Your task to perform on an android device: open app "The Home Depot" (install if not already installed), go to login, and select forgot password Image 0: 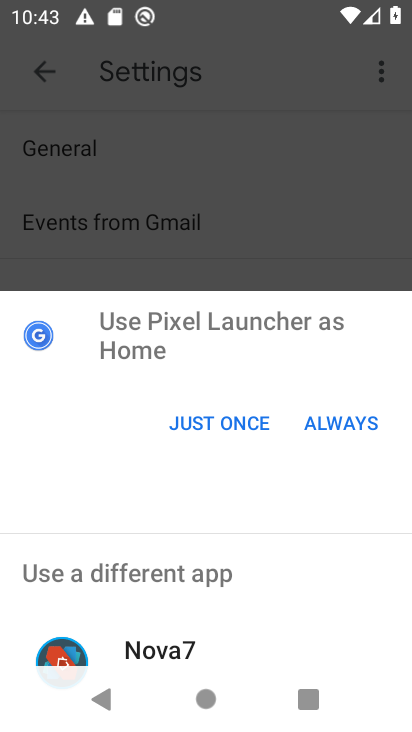
Step 0: click (220, 422)
Your task to perform on an android device: open app "The Home Depot" (install if not already installed), go to login, and select forgot password Image 1: 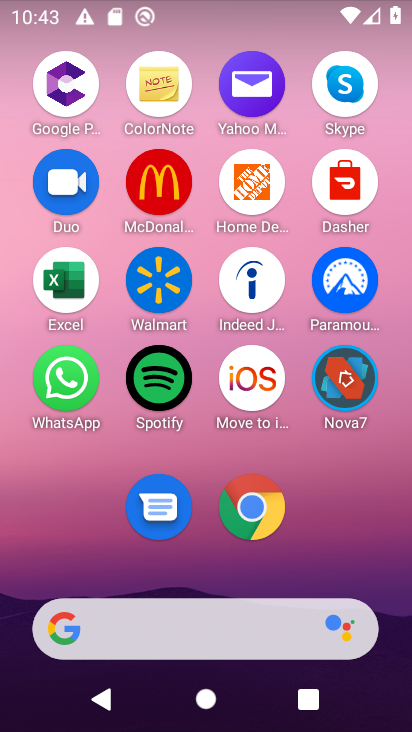
Step 1: drag from (399, 635) to (350, 177)
Your task to perform on an android device: open app "The Home Depot" (install if not already installed), go to login, and select forgot password Image 2: 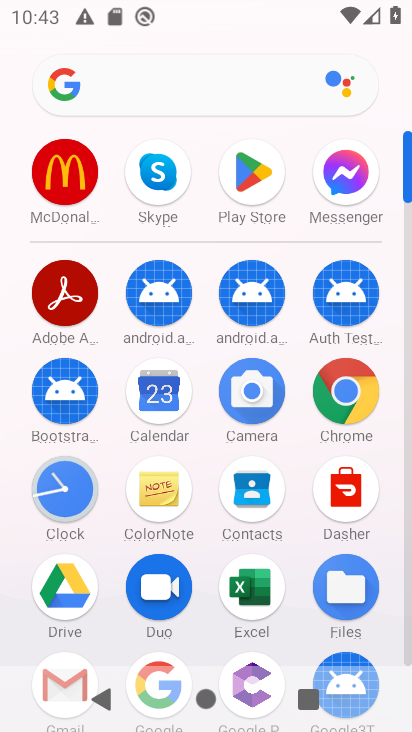
Step 2: click (409, 635)
Your task to perform on an android device: open app "The Home Depot" (install if not already installed), go to login, and select forgot password Image 3: 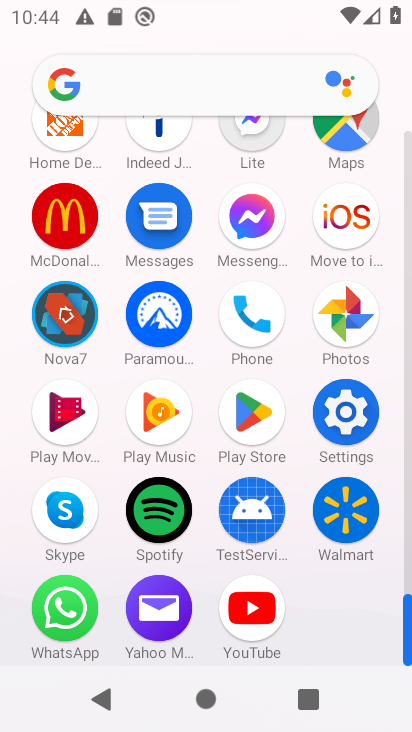
Step 3: click (254, 410)
Your task to perform on an android device: open app "The Home Depot" (install if not already installed), go to login, and select forgot password Image 4: 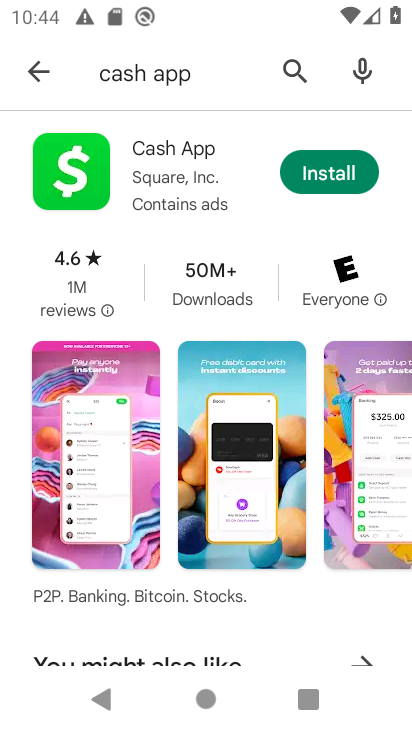
Step 4: click (289, 68)
Your task to perform on an android device: open app "The Home Depot" (install if not already installed), go to login, and select forgot password Image 5: 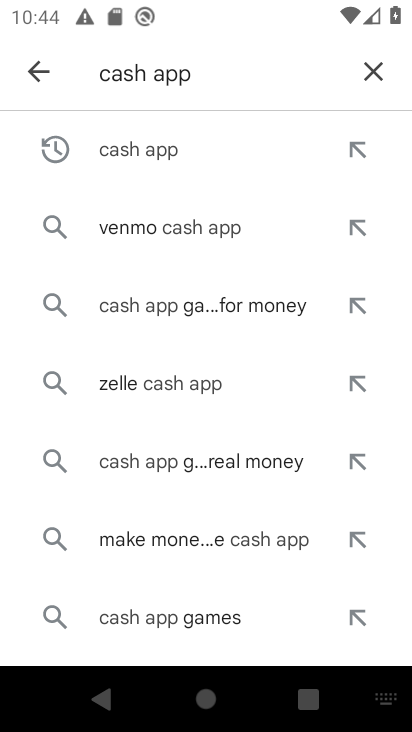
Step 5: click (376, 68)
Your task to perform on an android device: open app "The Home Depot" (install if not already installed), go to login, and select forgot password Image 6: 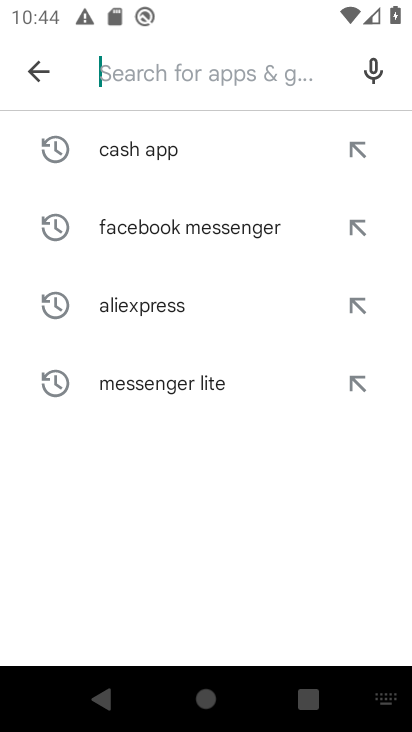
Step 6: type "The Home Depot"
Your task to perform on an android device: open app "The Home Depot" (install if not already installed), go to login, and select forgot password Image 7: 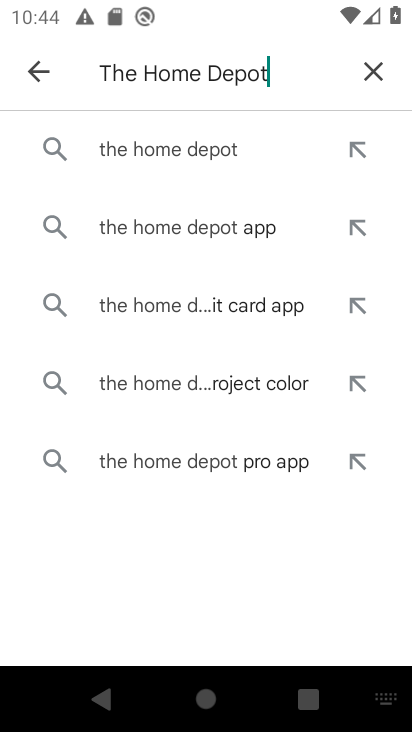
Step 7: click (143, 153)
Your task to perform on an android device: open app "The Home Depot" (install if not already installed), go to login, and select forgot password Image 8: 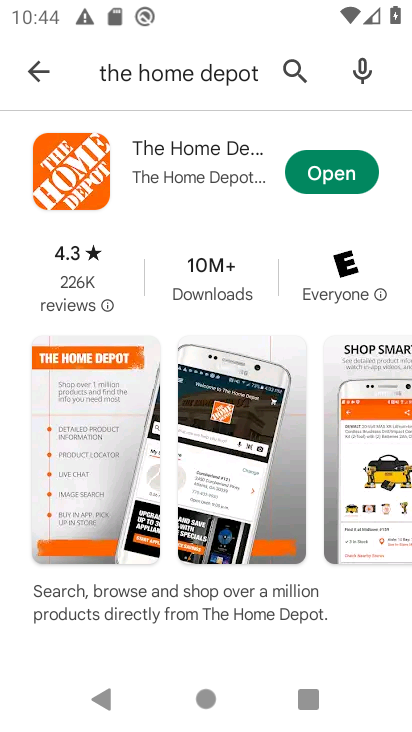
Step 8: click (175, 166)
Your task to perform on an android device: open app "The Home Depot" (install if not already installed), go to login, and select forgot password Image 9: 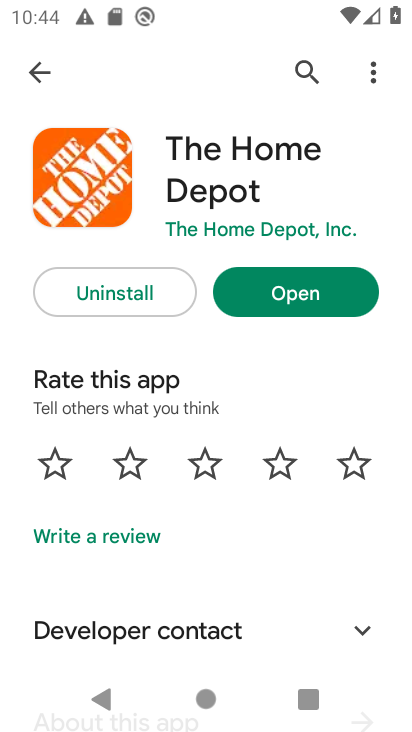
Step 9: click (290, 290)
Your task to perform on an android device: open app "The Home Depot" (install if not already installed), go to login, and select forgot password Image 10: 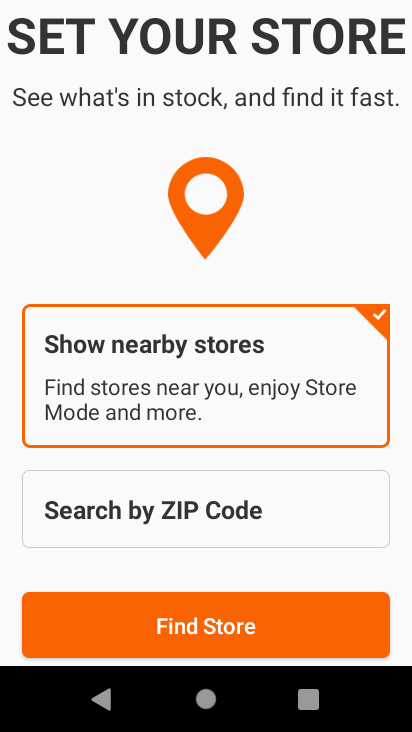
Step 10: click (207, 625)
Your task to perform on an android device: open app "The Home Depot" (install if not already installed), go to login, and select forgot password Image 11: 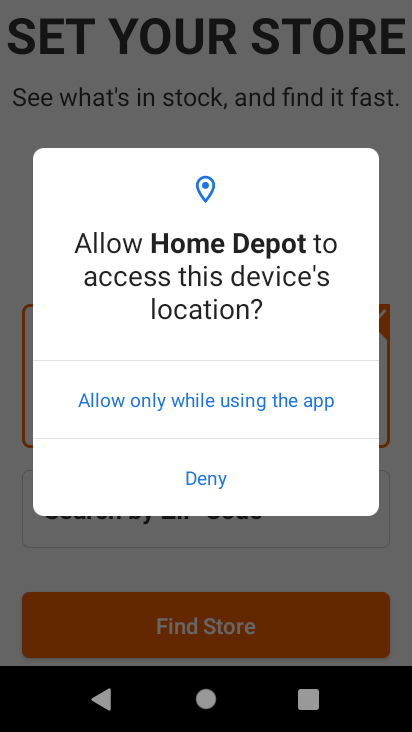
Step 11: click (189, 392)
Your task to perform on an android device: open app "The Home Depot" (install if not already installed), go to login, and select forgot password Image 12: 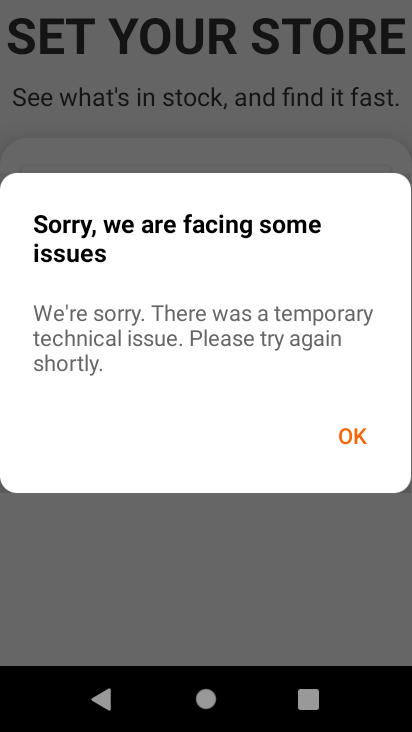
Step 12: click (357, 431)
Your task to perform on an android device: open app "The Home Depot" (install if not already installed), go to login, and select forgot password Image 13: 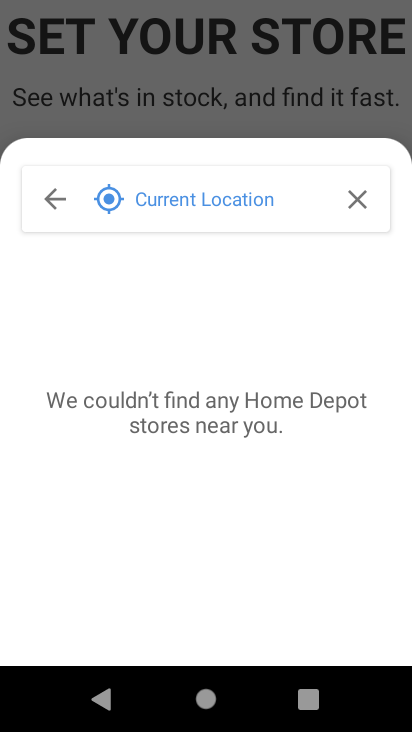
Step 13: task complete